Your task to perform on an android device: change the clock style Image 0: 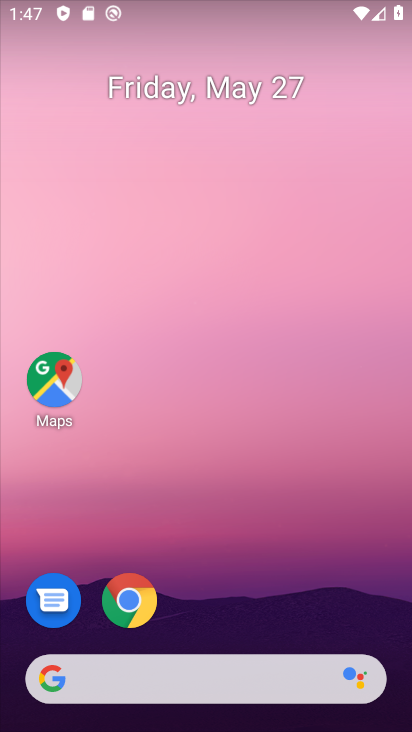
Step 0: drag from (212, 603) to (151, 34)
Your task to perform on an android device: change the clock style Image 1: 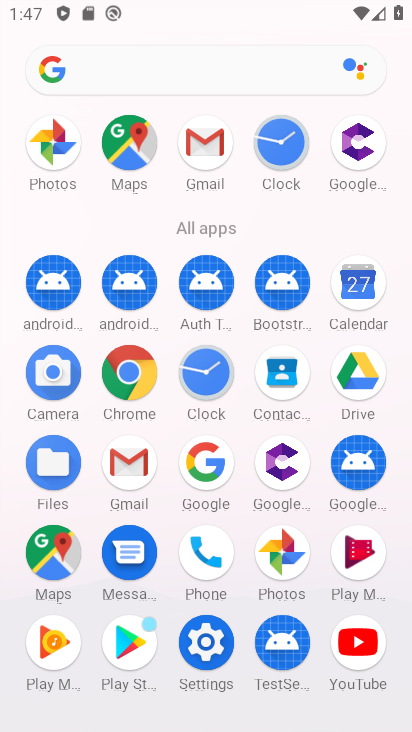
Step 1: drag from (8, 537) to (13, 267)
Your task to perform on an android device: change the clock style Image 2: 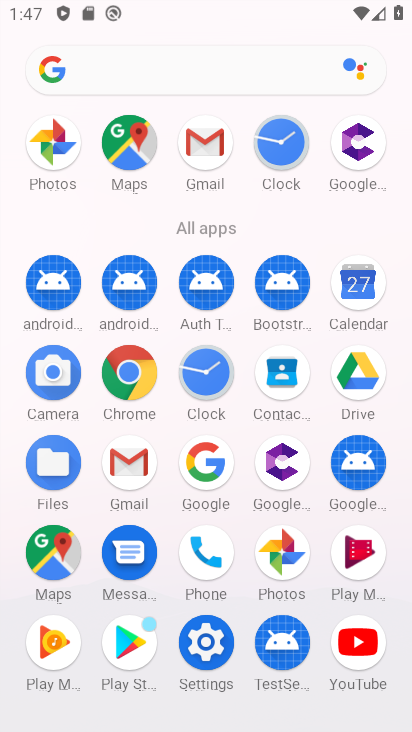
Step 2: click (206, 369)
Your task to perform on an android device: change the clock style Image 3: 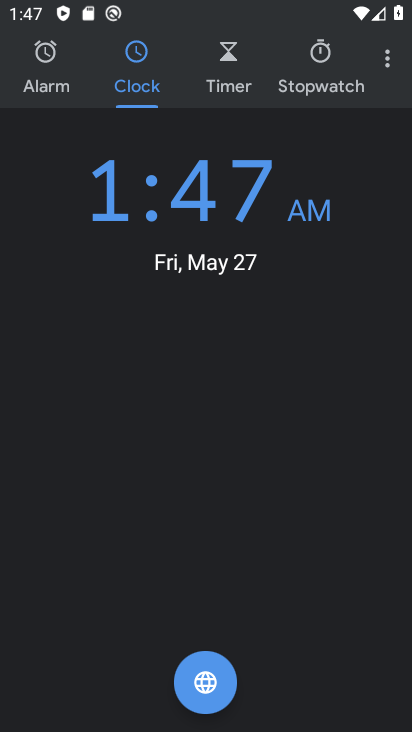
Step 3: drag from (383, 52) to (322, 106)
Your task to perform on an android device: change the clock style Image 4: 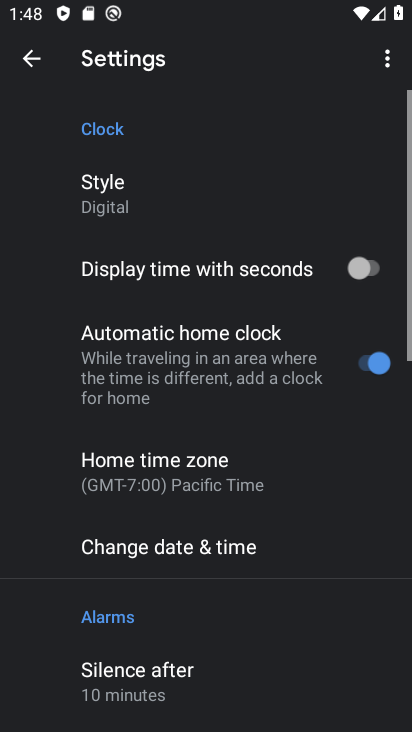
Step 4: click (189, 183)
Your task to perform on an android device: change the clock style Image 5: 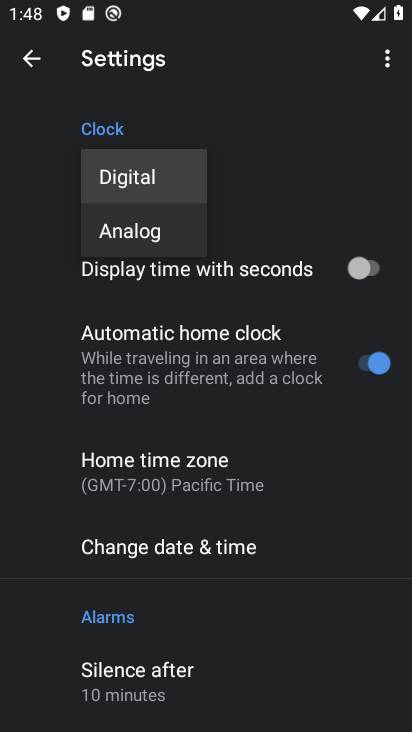
Step 5: click (155, 219)
Your task to perform on an android device: change the clock style Image 6: 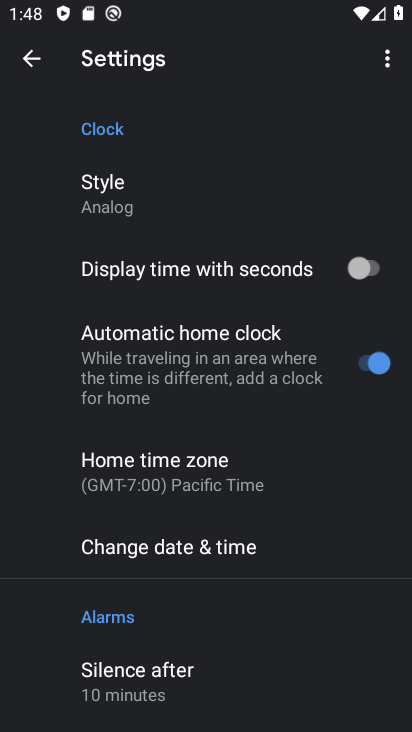
Step 6: task complete